Your task to perform on an android device: toggle notifications settings in the gmail app Image 0: 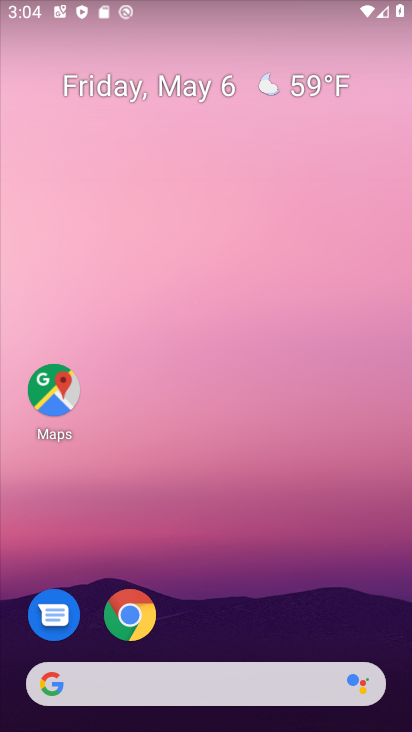
Step 0: drag from (226, 586) to (231, 230)
Your task to perform on an android device: toggle notifications settings in the gmail app Image 1: 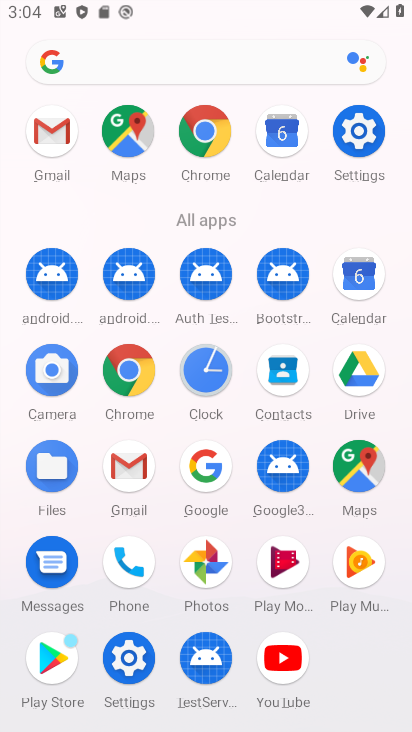
Step 1: click (127, 462)
Your task to perform on an android device: toggle notifications settings in the gmail app Image 2: 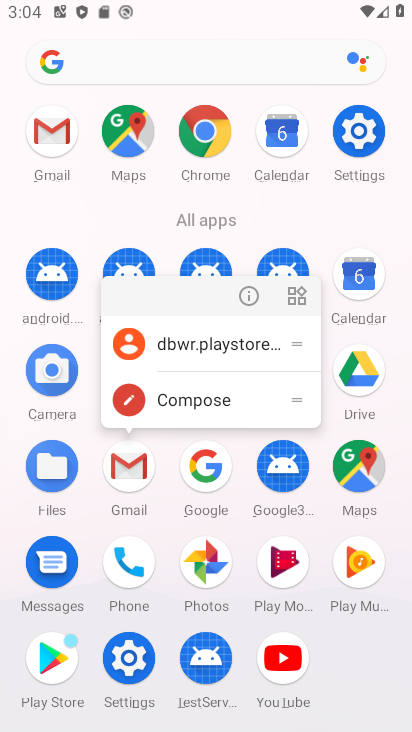
Step 2: click (127, 462)
Your task to perform on an android device: toggle notifications settings in the gmail app Image 3: 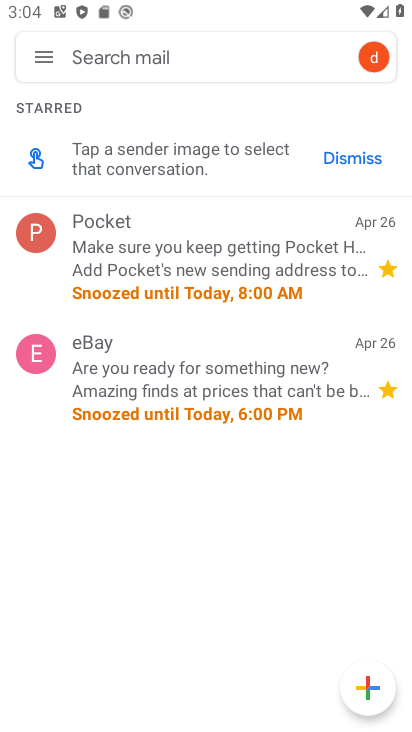
Step 3: click (45, 61)
Your task to perform on an android device: toggle notifications settings in the gmail app Image 4: 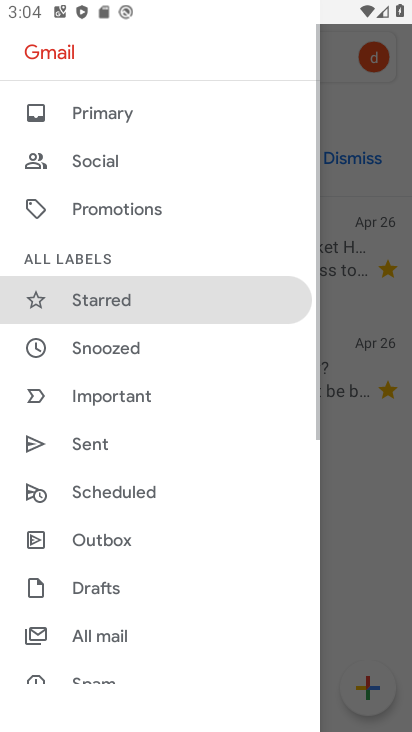
Step 4: drag from (138, 641) to (224, 171)
Your task to perform on an android device: toggle notifications settings in the gmail app Image 5: 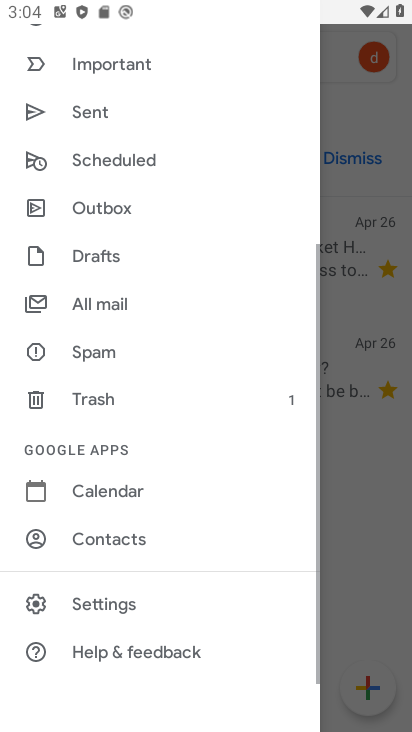
Step 5: click (110, 614)
Your task to perform on an android device: toggle notifications settings in the gmail app Image 6: 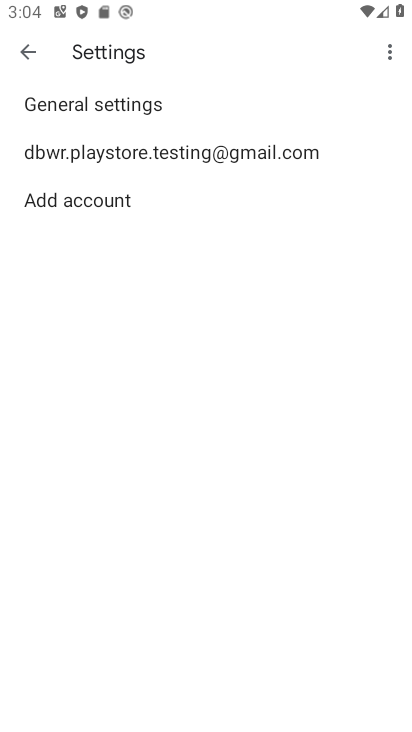
Step 6: click (111, 150)
Your task to perform on an android device: toggle notifications settings in the gmail app Image 7: 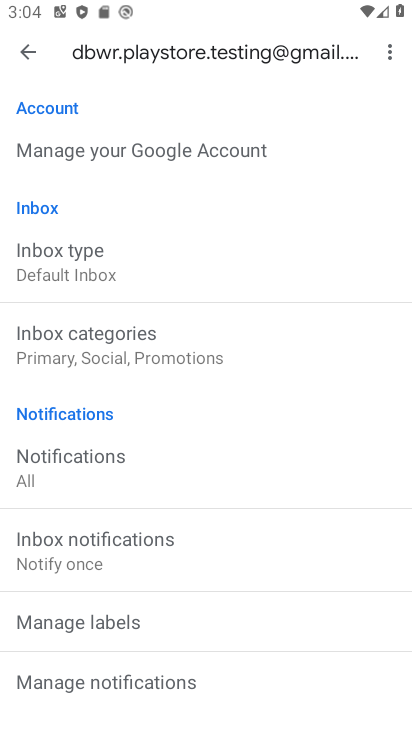
Step 7: click (97, 474)
Your task to perform on an android device: toggle notifications settings in the gmail app Image 8: 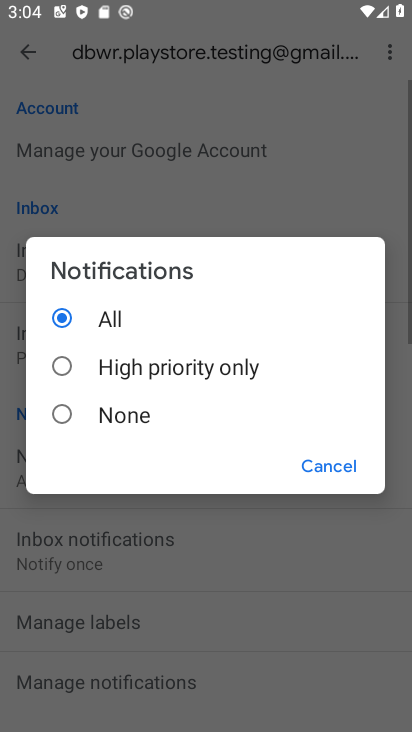
Step 8: click (122, 397)
Your task to perform on an android device: toggle notifications settings in the gmail app Image 9: 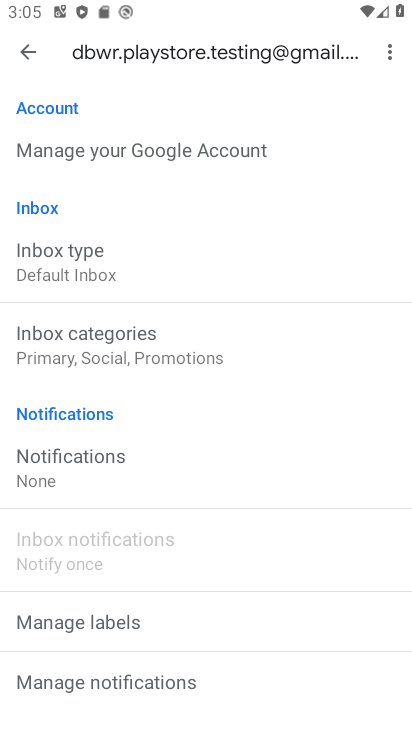
Step 9: task complete